Your task to perform on an android device: change notifications settings Image 0: 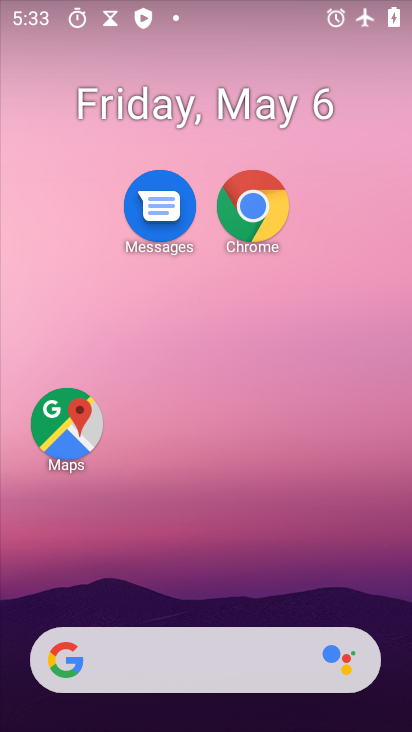
Step 0: task complete